Your task to perform on an android device: Search for Mexican restaurants on Maps Image 0: 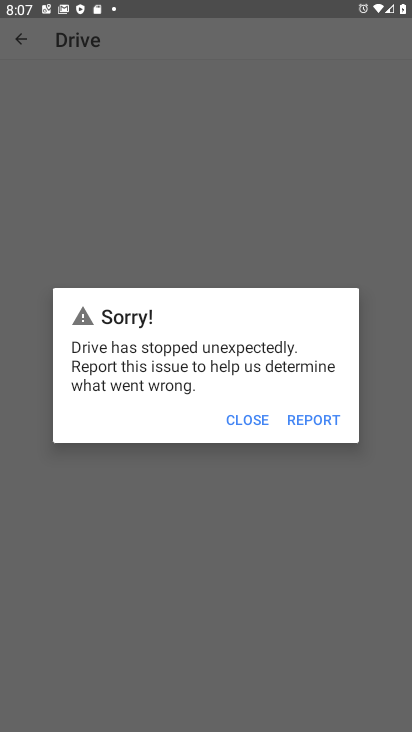
Step 0: press home button
Your task to perform on an android device: Search for Mexican restaurants on Maps Image 1: 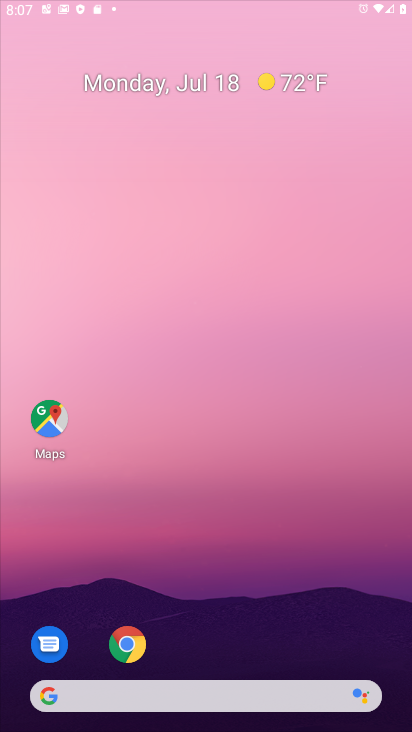
Step 1: drag from (383, 680) to (263, 43)
Your task to perform on an android device: Search for Mexican restaurants on Maps Image 2: 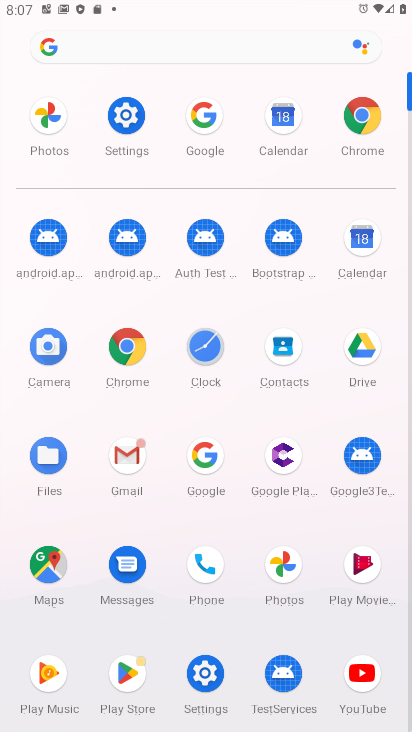
Step 2: click (39, 575)
Your task to perform on an android device: Search for Mexican restaurants on Maps Image 3: 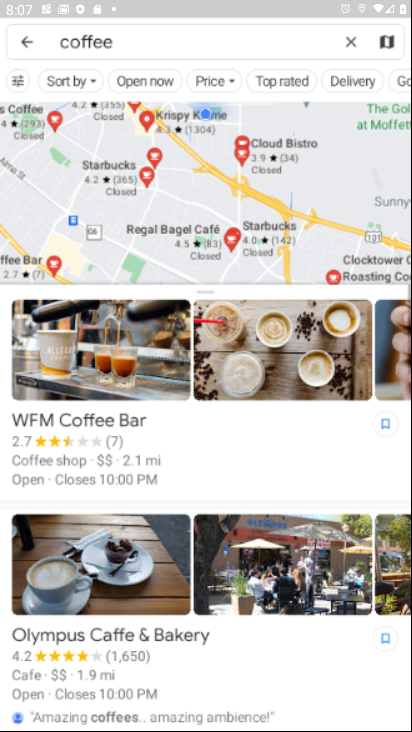
Step 3: click (355, 37)
Your task to perform on an android device: Search for Mexican restaurants on Maps Image 4: 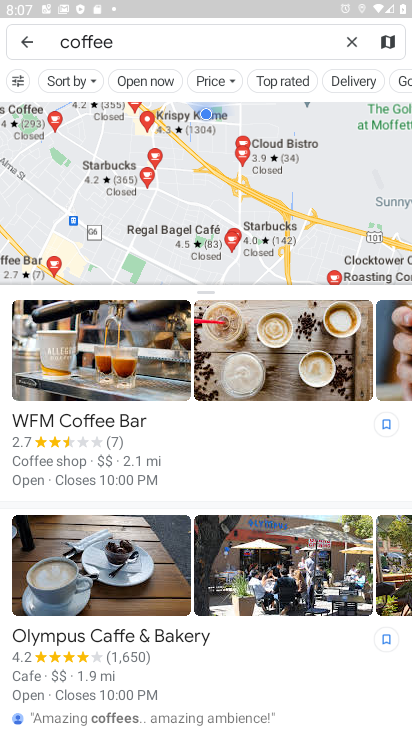
Step 4: click (356, 37)
Your task to perform on an android device: Search for Mexican restaurants on Maps Image 5: 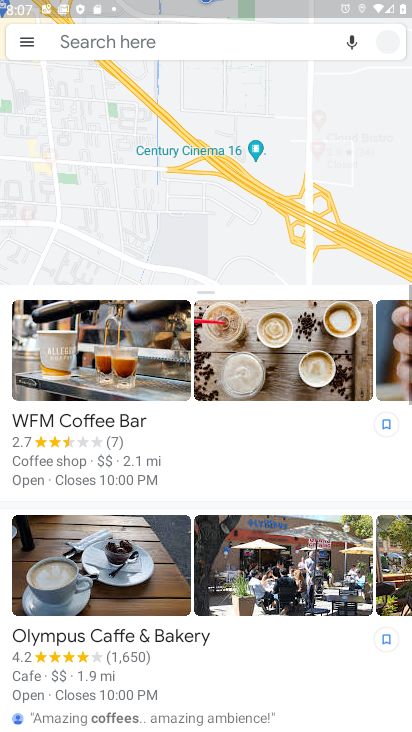
Step 5: click (177, 43)
Your task to perform on an android device: Search for Mexican restaurants on Maps Image 6: 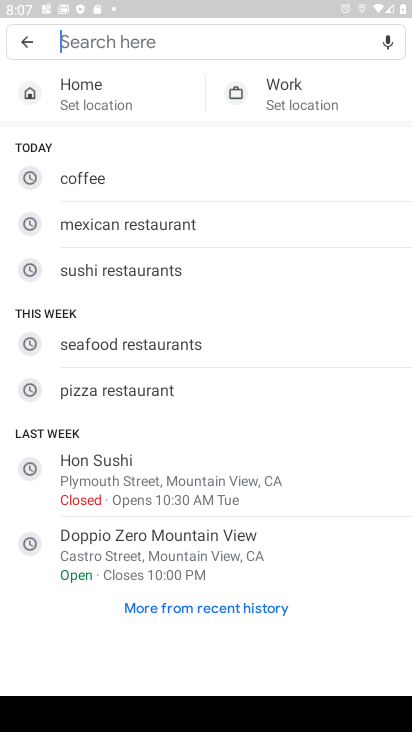
Step 6: click (101, 229)
Your task to perform on an android device: Search for Mexican restaurants on Maps Image 7: 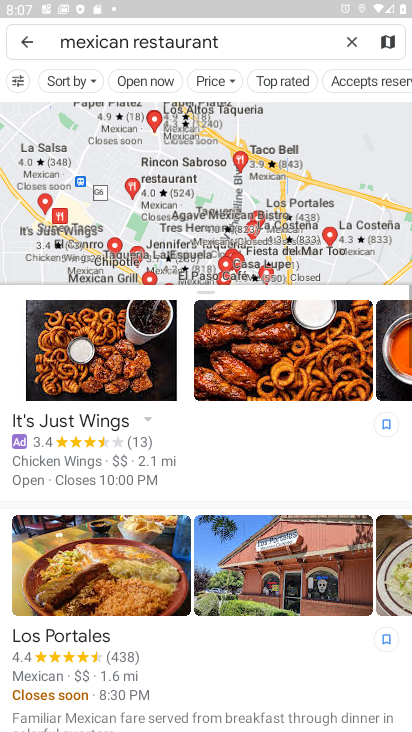
Step 7: task complete